Your task to perform on an android device: find snoozed emails in the gmail app Image 0: 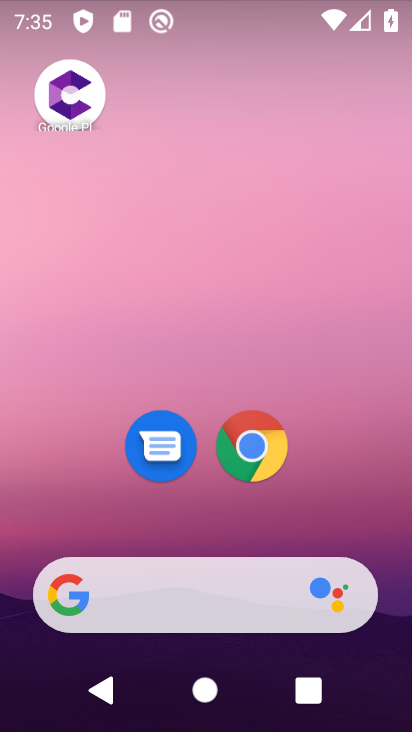
Step 0: drag from (402, 708) to (332, 109)
Your task to perform on an android device: find snoozed emails in the gmail app Image 1: 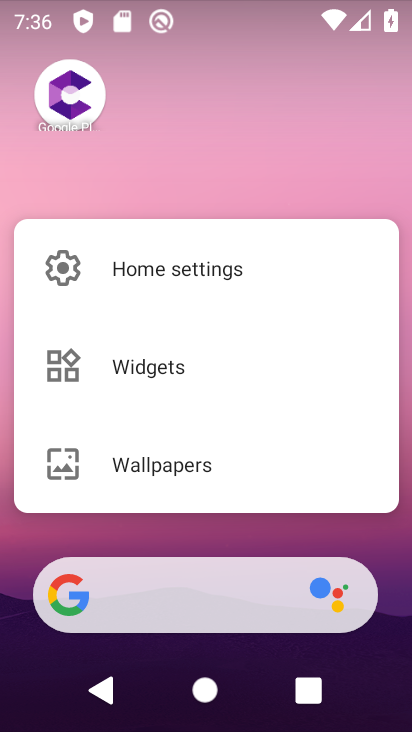
Step 1: click (372, 554)
Your task to perform on an android device: find snoozed emails in the gmail app Image 2: 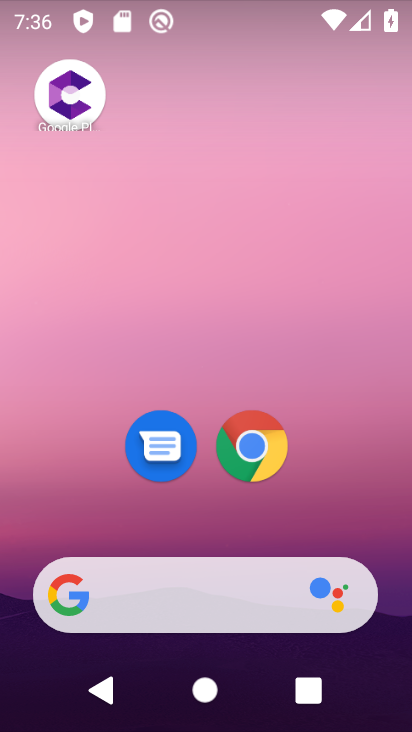
Step 2: drag from (377, 696) to (271, 65)
Your task to perform on an android device: find snoozed emails in the gmail app Image 3: 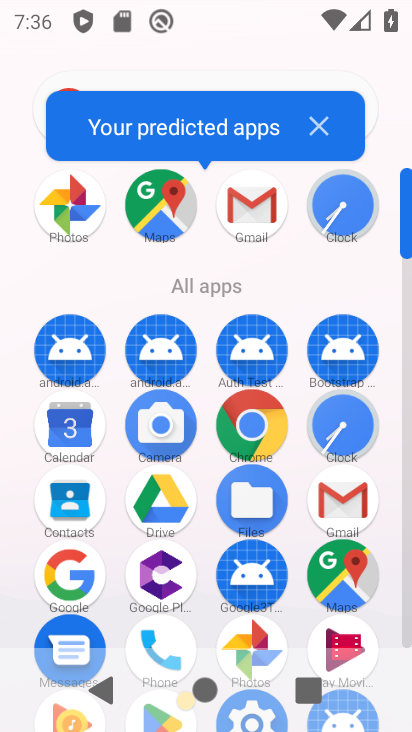
Step 3: click (350, 505)
Your task to perform on an android device: find snoozed emails in the gmail app Image 4: 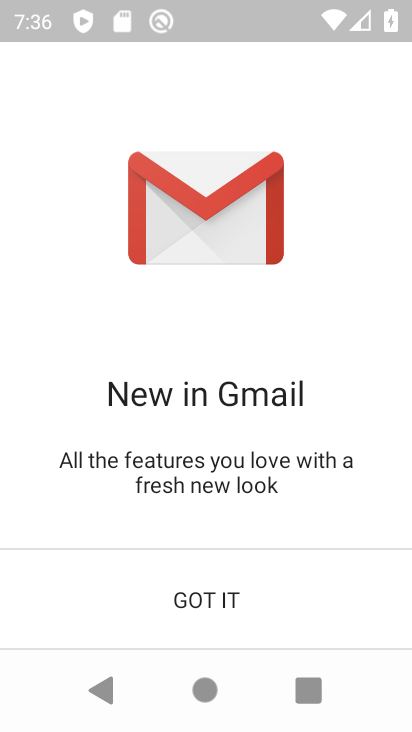
Step 4: click (219, 602)
Your task to perform on an android device: find snoozed emails in the gmail app Image 5: 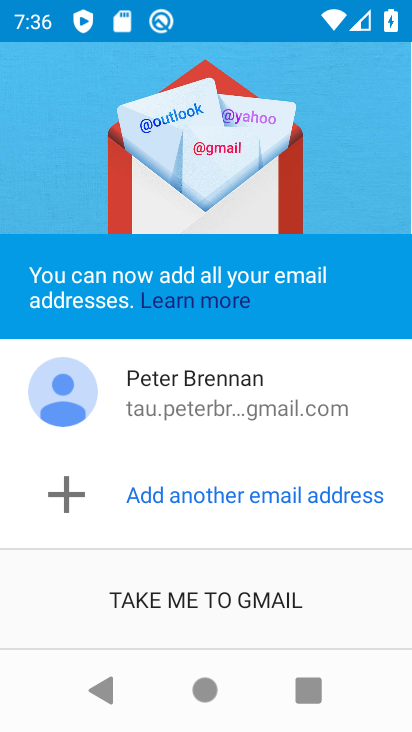
Step 5: click (222, 593)
Your task to perform on an android device: find snoozed emails in the gmail app Image 6: 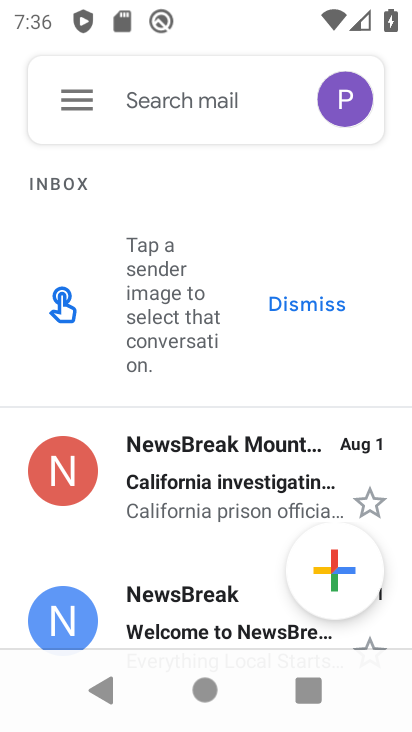
Step 6: drag from (261, 593) to (248, 231)
Your task to perform on an android device: find snoozed emails in the gmail app Image 7: 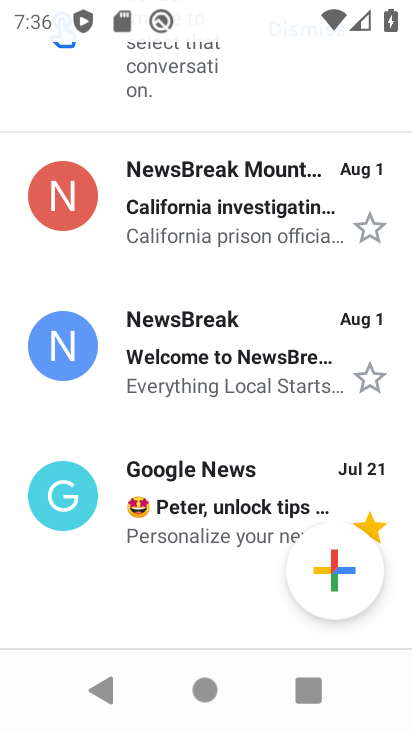
Step 7: drag from (163, 260) to (186, 496)
Your task to perform on an android device: find snoozed emails in the gmail app Image 8: 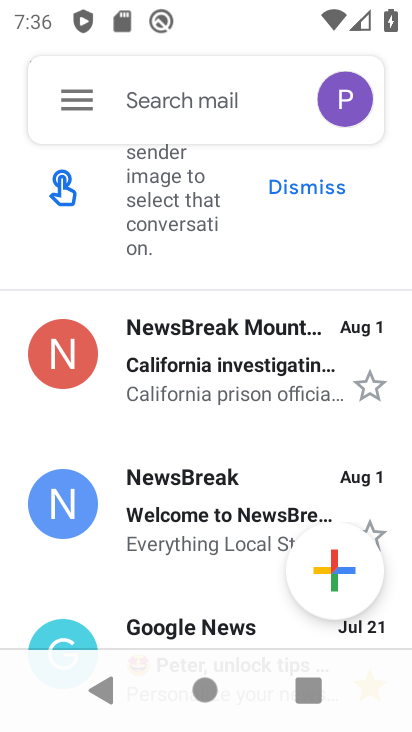
Step 8: click (73, 101)
Your task to perform on an android device: find snoozed emails in the gmail app Image 9: 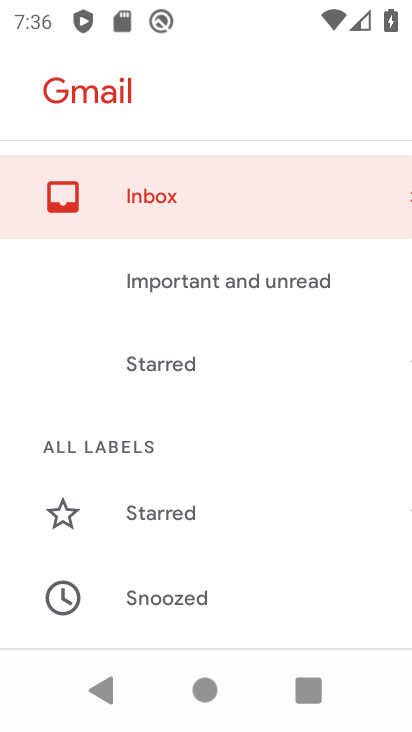
Step 9: click (163, 595)
Your task to perform on an android device: find snoozed emails in the gmail app Image 10: 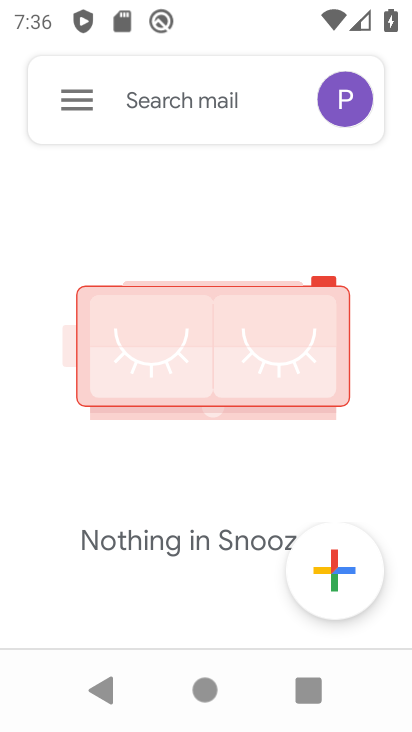
Step 10: task complete